Your task to perform on an android device: change keyboard looks Image 0: 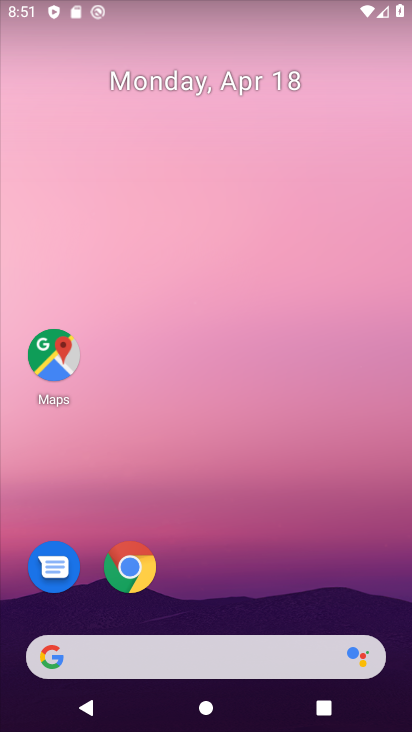
Step 0: drag from (276, 595) to (277, 62)
Your task to perform on an android device: change keyboard looks Image 1: 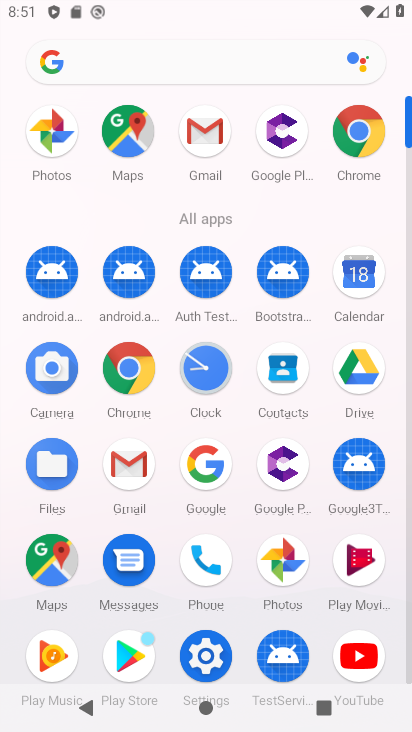
Step 1: click (214, 658)
Your task to perform on an android device: change keyboard looks Image 2: 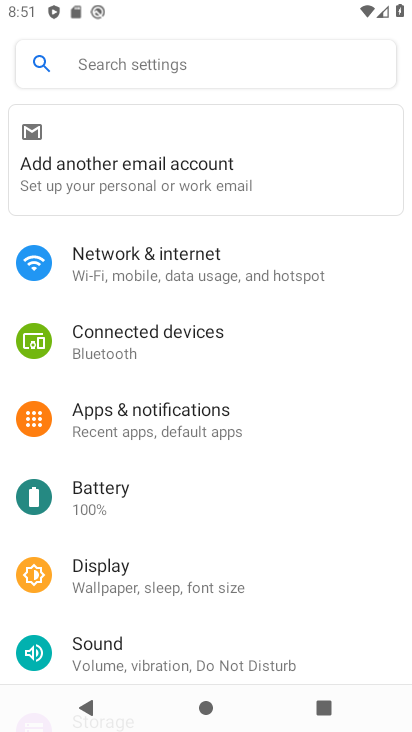
Step 2: drag from (232, 591) to (222, 103)
Your task to perform on an android device: change keyboard looks Image 3: 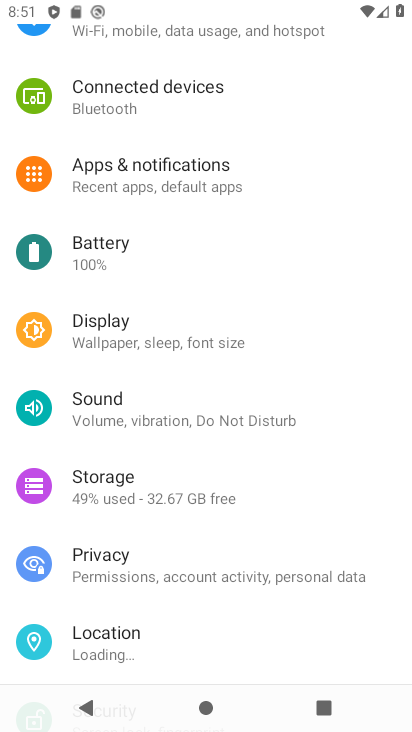
Step 3: drag from (263, 620) to (280, 173)
Your task to perform on an android device: change keyboard looks Image 4: 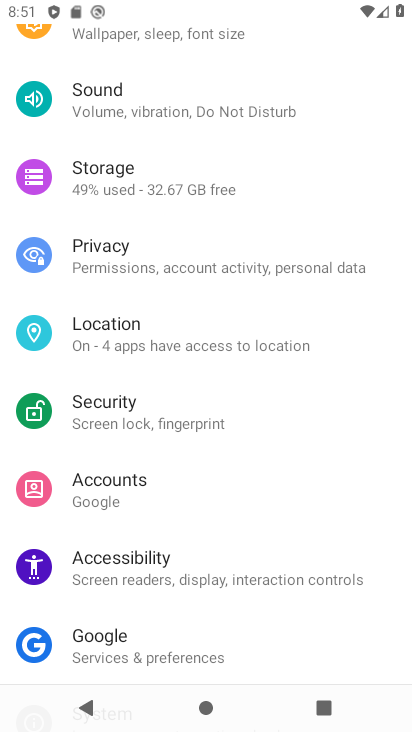
Step 4: drag from (225, 610) to (270, 152)
Your task to perform on an android device: change keyboard looks Image 5: 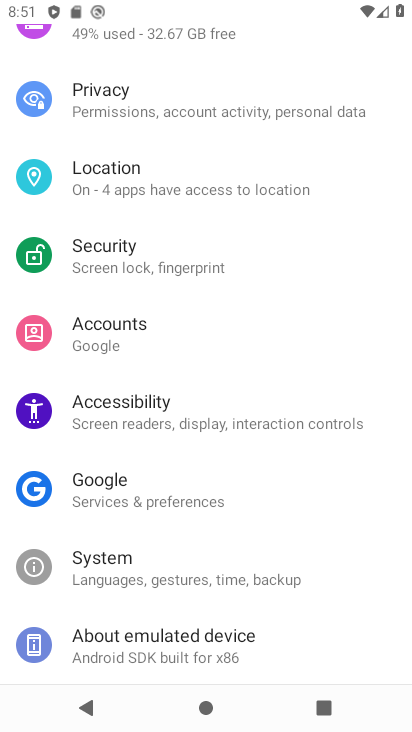
Step 5: click (178, 575)
Your task to perform on an android device: change keyboard looks Image 6: 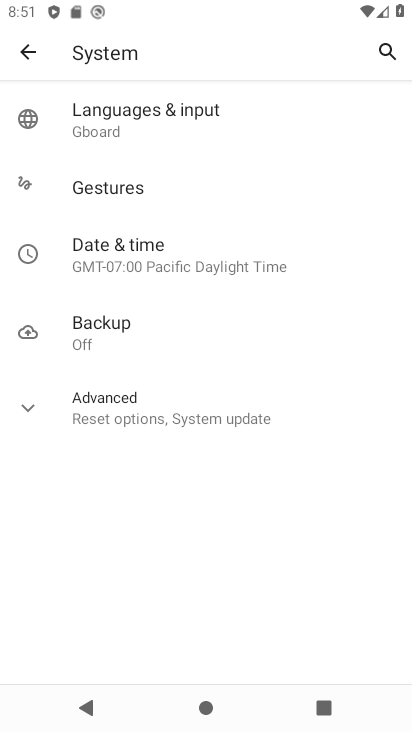
Step 6: click (122, 123)
Your task to perform on an android device: change keyboard looks Image 7: 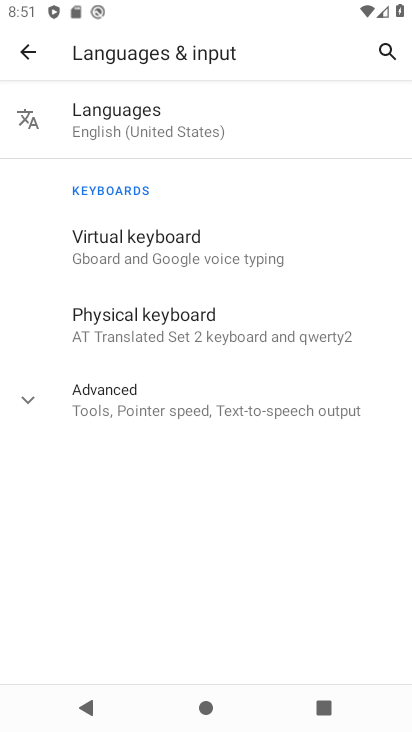
Step 7: click (166, 248)
Your task to perform on an android device: change keyboard looks Image 8: 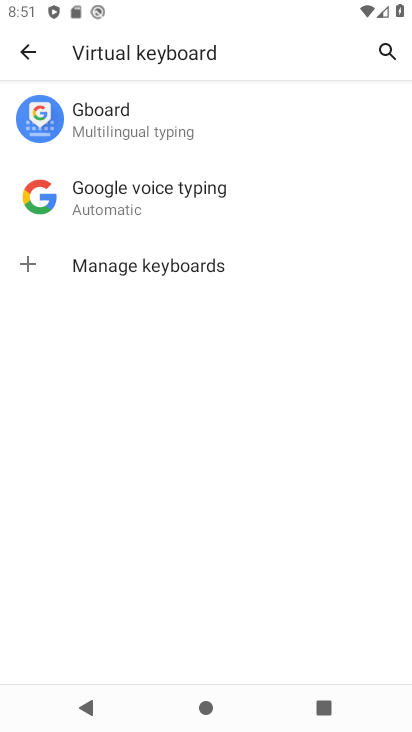
Step 8: click (132, 119)
Your task to perform on an android device: change keyboard looks Image 9: 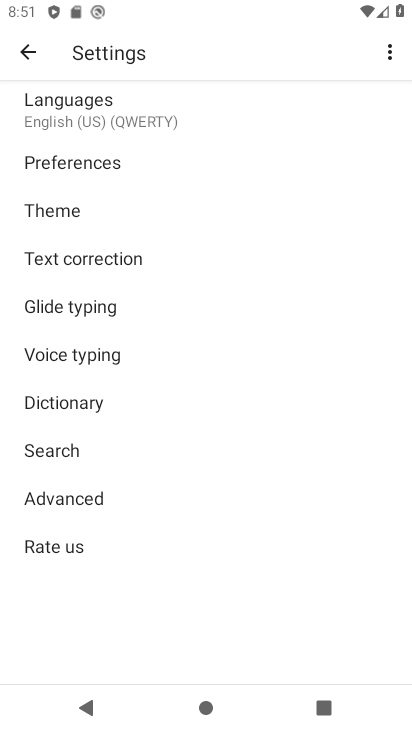
Step 9: click (74, 205)
Your task to perform on an android device: change keyboard looks Image 10: 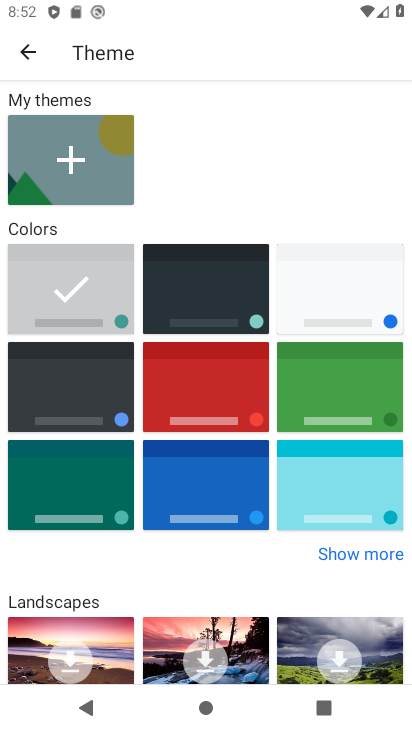
Step 10: click (203, 281)
Your task to perform on an android device: change keyboard looks Image 11: 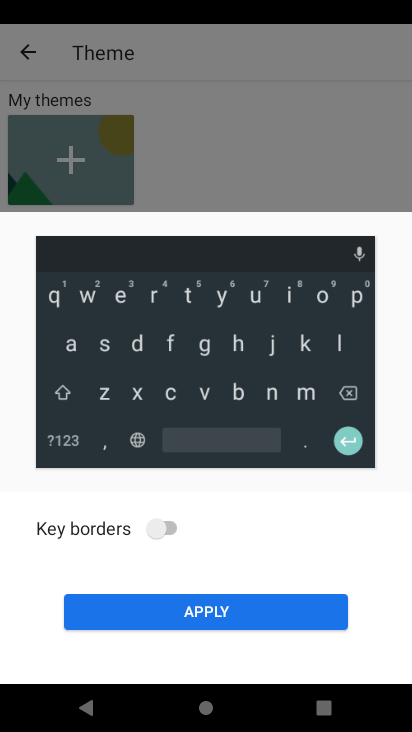
Step 11: click (171, 528)
Your task to perform on an android device: change keyboard looks Image 12: 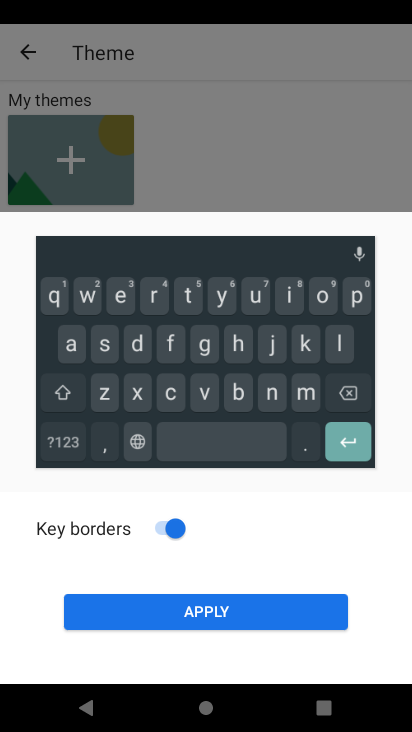
Step 12: click (211, 610)
Your task to perform on an android device: change keyboard looks Image 13: 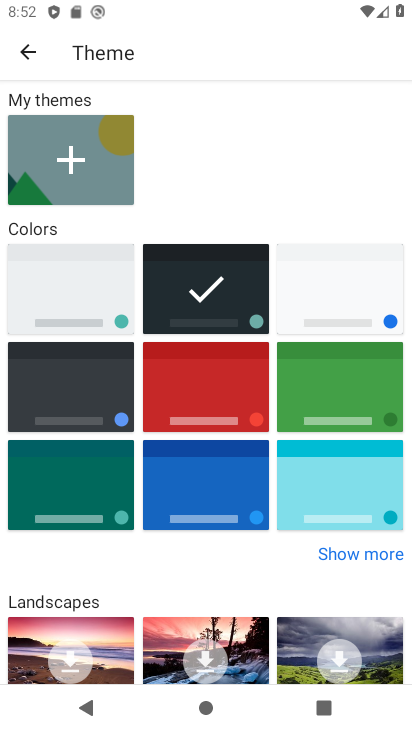
Step 13: task complete